Your task to perform on an android device: turn off location Image 0: 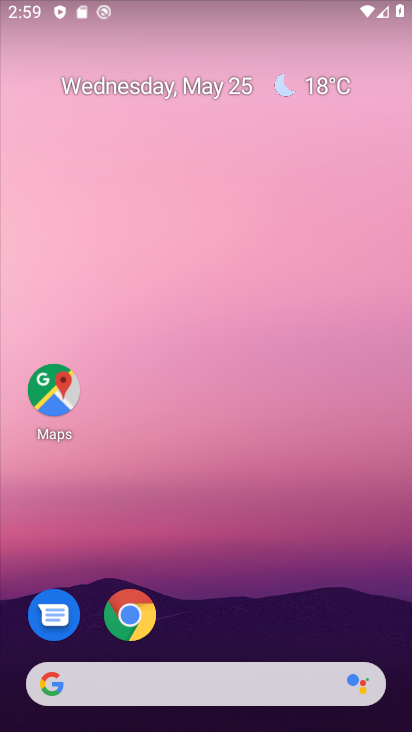
Step 0: drag from (235, 633) to (200, 195)
Your task to perform on an android device: turn off location Image 1: 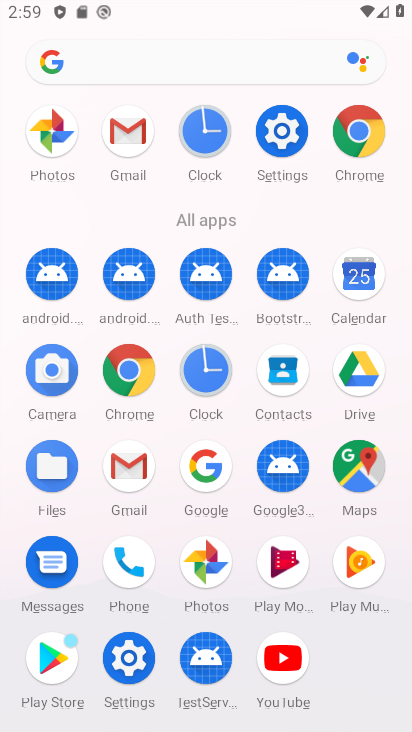
Step 1: click (284, 141)
Your task to perform on an android device: turn off location Image 2: 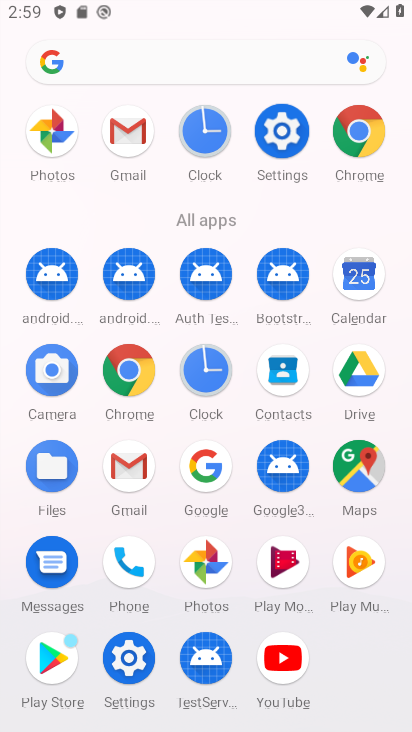
Step 2: click (284, 141)
Your task to perform on an android device: turn off location Image 3: 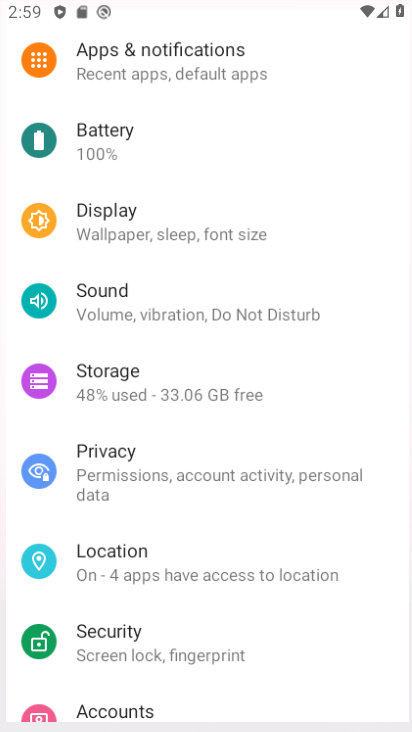
Step 3: click (285, 139)
Your task to perform on an android device: turn off location Image 4: 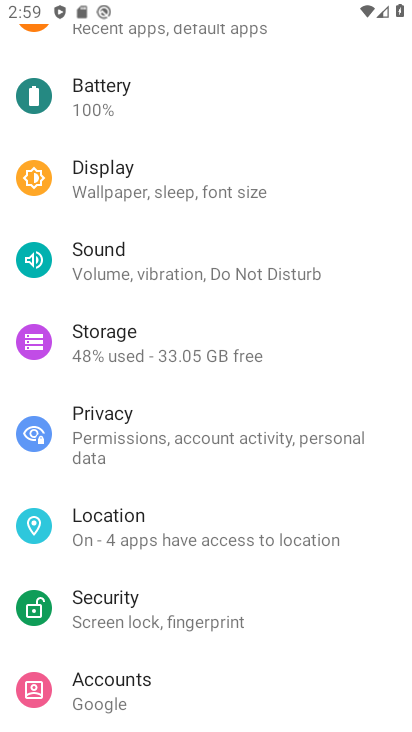
Step 4: click (287, 140)
Your task to perform on an android device: turn off location Image 5: 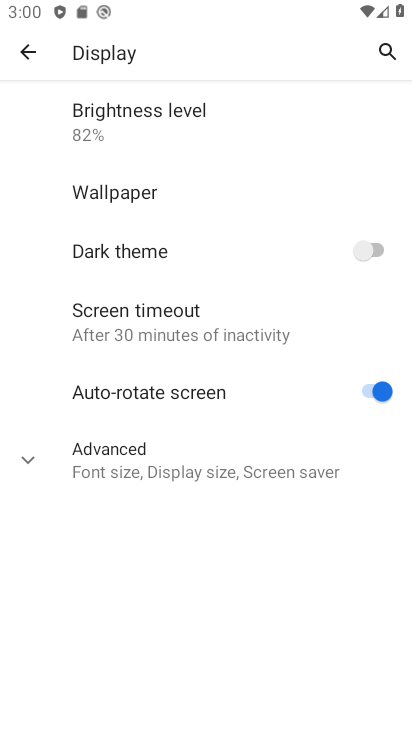
Step 5: click (38, 63)
Your task to perform on an android device: turn off location Image 6: 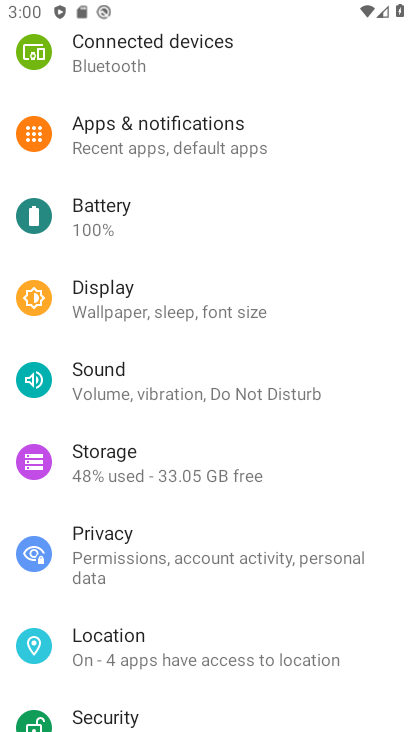
Step 6: click (118, 625)
Your task to perform on an android device: turn off location Image 7: 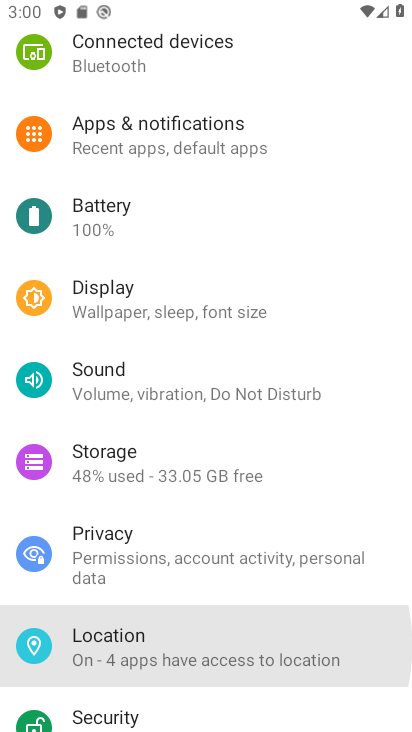
Step 7: click (119, 626)
Your task to perform on an android device: turn off location Image 8: 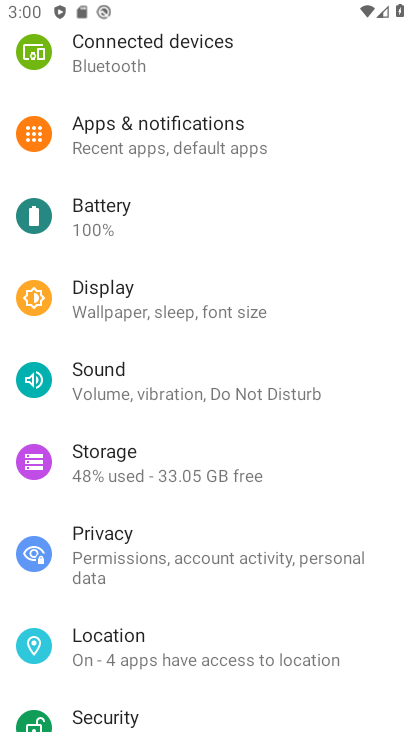
Step 8: click (119, 626)
Your task to perform on an android device: turn off location Image 9: 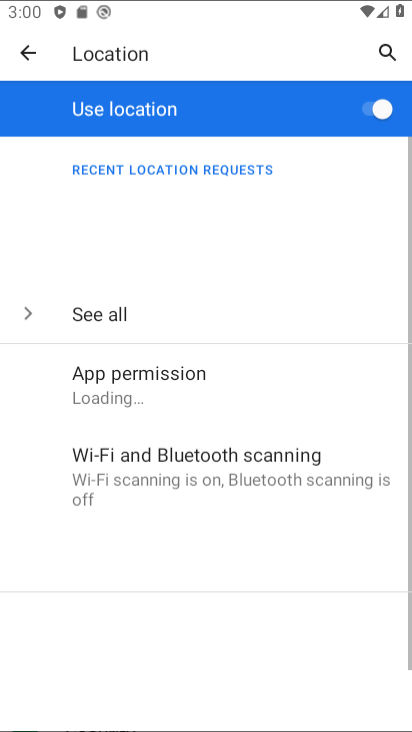
Step 9: click (119, 628)
Your task to perform on an android device: turn off location Image 10: 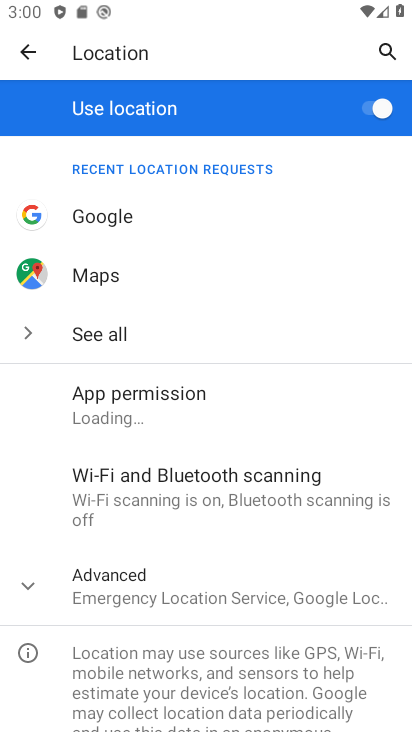
Step 10: click (127, 571)
Your task to perform on an android device: turn off location Image 11: 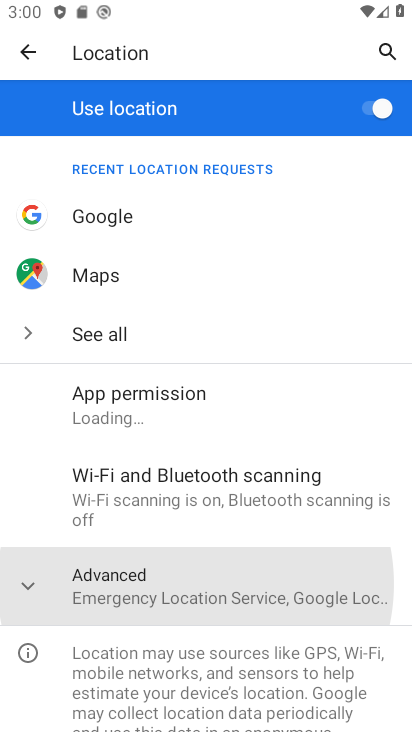
Step 11: click (130, 590)
Your task to perform on an android device: turn off location Image 12: 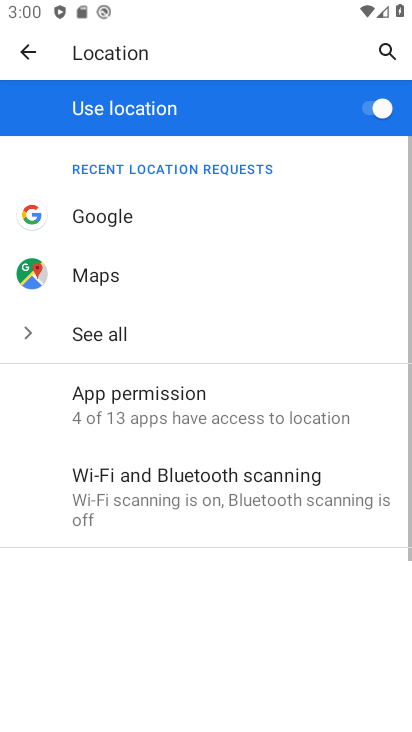
Step 12: click (130, 593)
Your task to perform on an android device: turn off location Image 13: 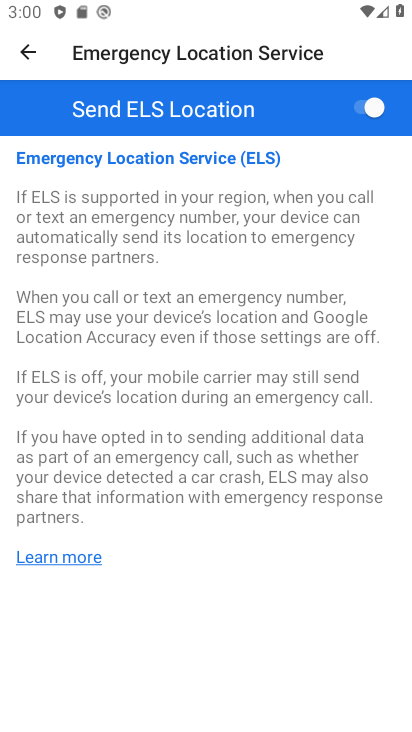
Step 13: click (21, 46)
Your task to perform on an android device: turn off location Image 14: 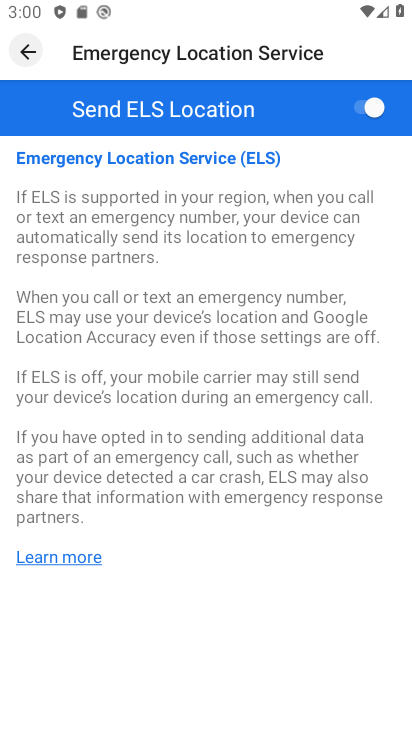
Step 14: click (24, 45)
Your task to perform on an android device: turn off location Image 15: 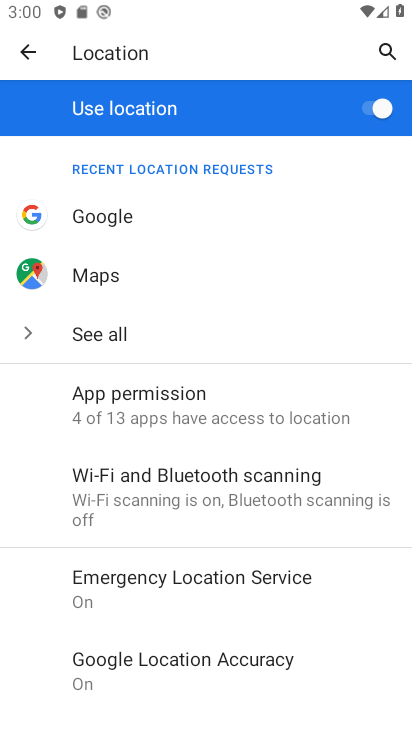
Step 15: drag from (247, 504) to (204, 241)
Your task to perform on an android device: turn off location Image 16: 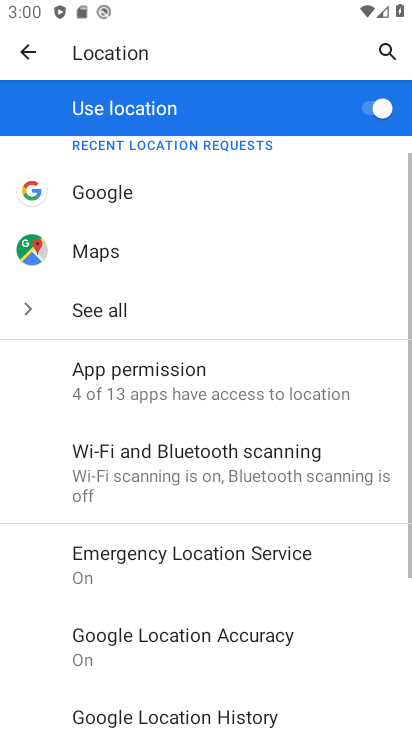
Step 16: drag from (221, 410) to (203, 190)
Your task to perform on an android device: turn off location Image 17: 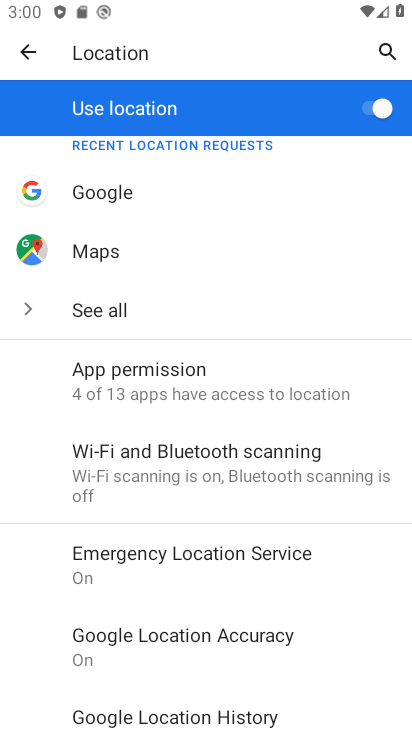
Step 17: drag from (231, 481) to (226, 210)
Your task to perform on an android device: turn off location Image 18: 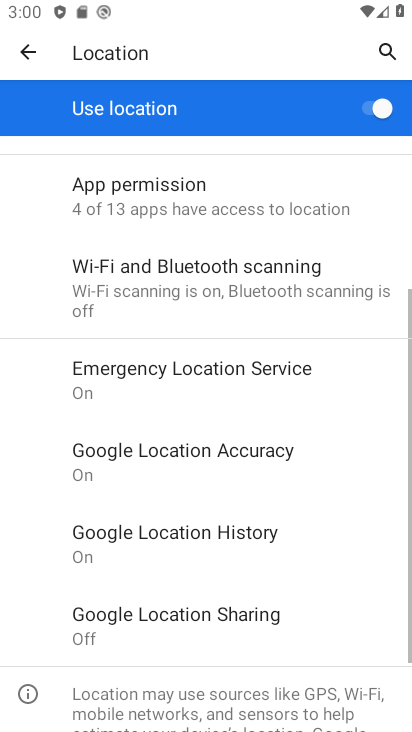
Step 18: drag from (241, 573) to (275, 216)
Your task to perform on an android device: turn off location Image 19: 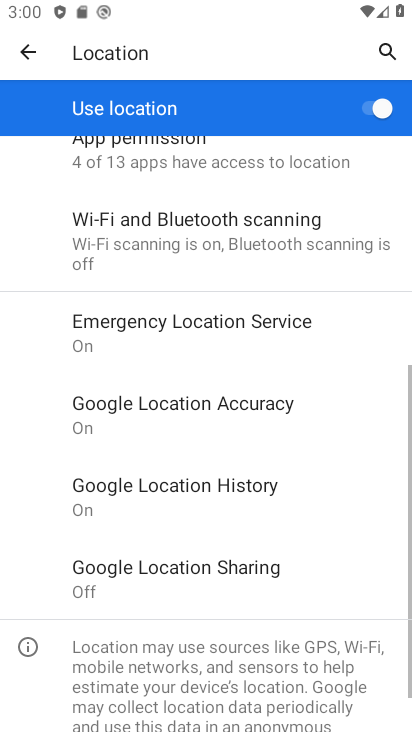
Step 19: drag from (280, 386) to (280, 287)
Your task to perform on an android device: turn off location Image 20: 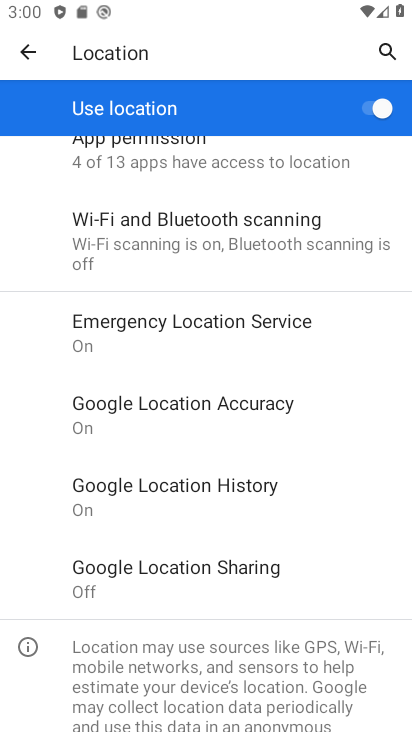
Step 20: drag from (260, 514) to (260, 247)
Your task to perform on an android device: turn off location Image 21: 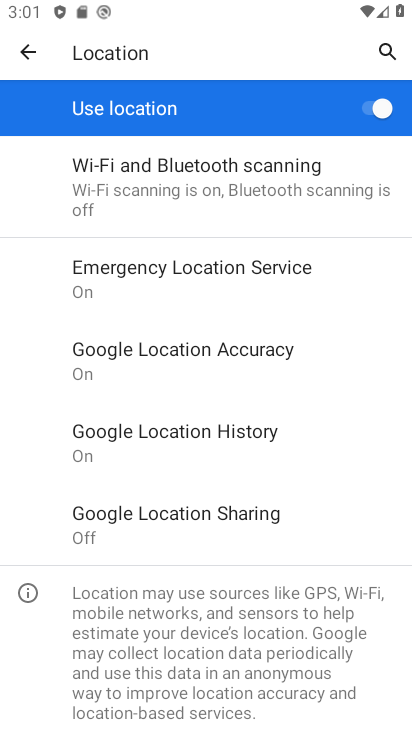
Step 21: click (157, 348)
Your task to perform on an android device: turn off location Image 22: 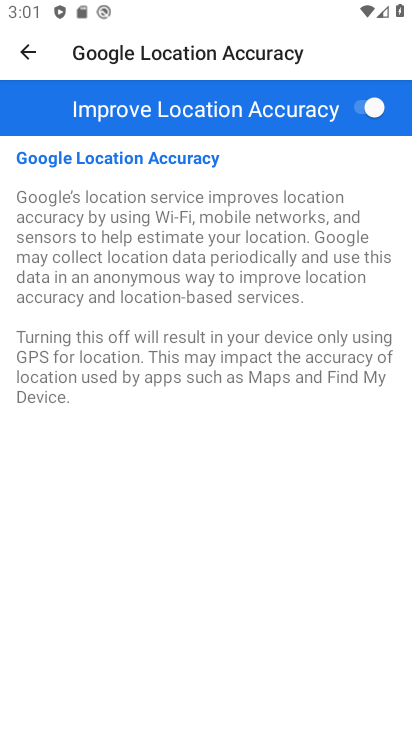
Step 22: click (40, 53)
Your task to perform on an android device: turn off location Image 23: 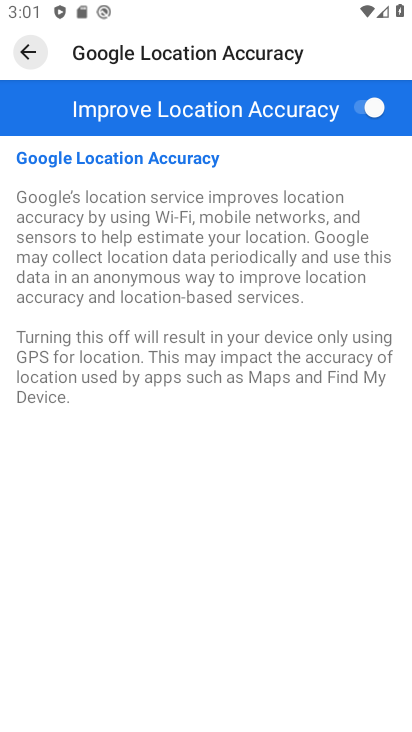
Step 23: click (40, 53)
Your task to perform on an android device: turn off location Image 24: 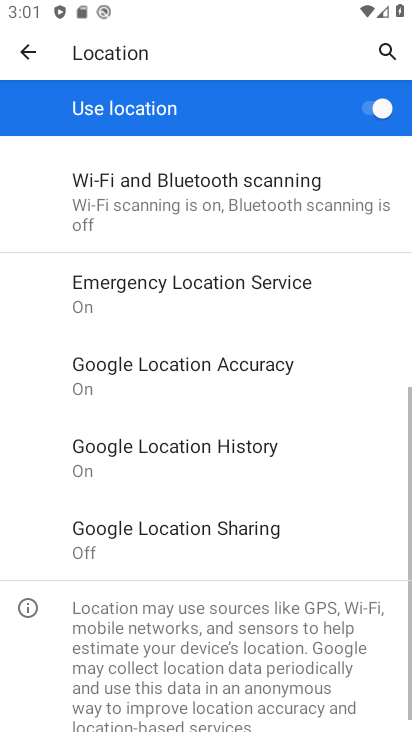
Step 24: click (374, 109)
Your task to perform on an android device: turn off location Image 25: 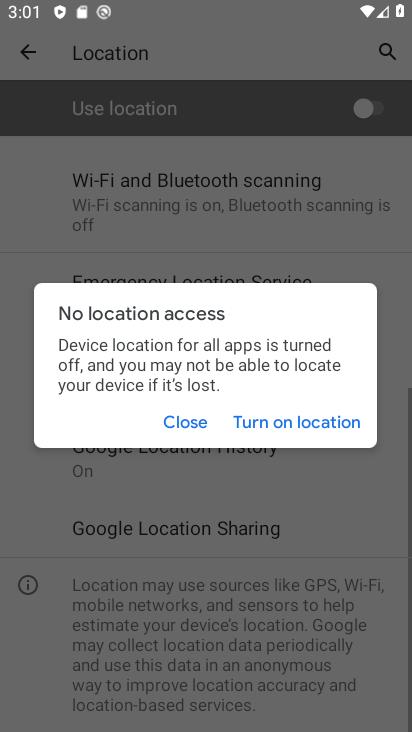
Step 25: task complete